Your task to perform on an android device: allow notifications from all sites in the chrome app Image 0: 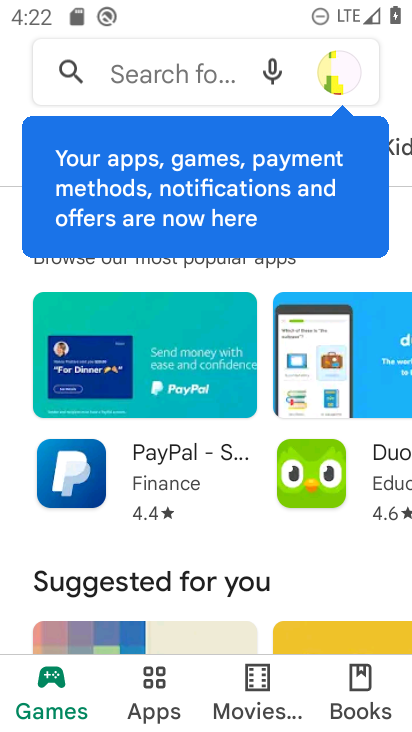
Step 0: press home button
Your task to perform on an android device: allow notifications from all sites in the chrome app Image 1: 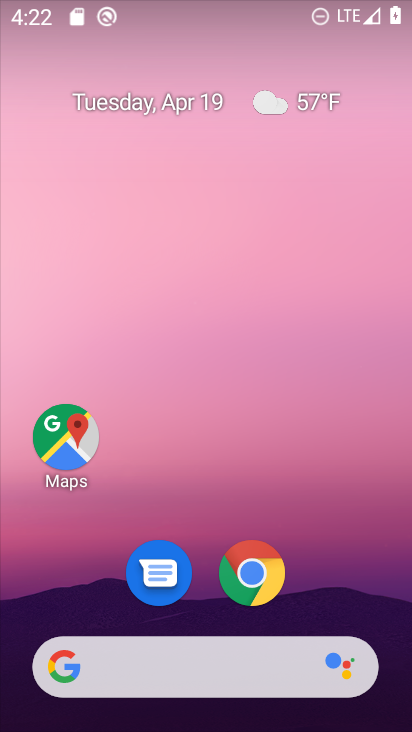
Step 1: click (265, 574)
Your task to perform on an android device: allow notifications from all sites in the chrome app Image 2: 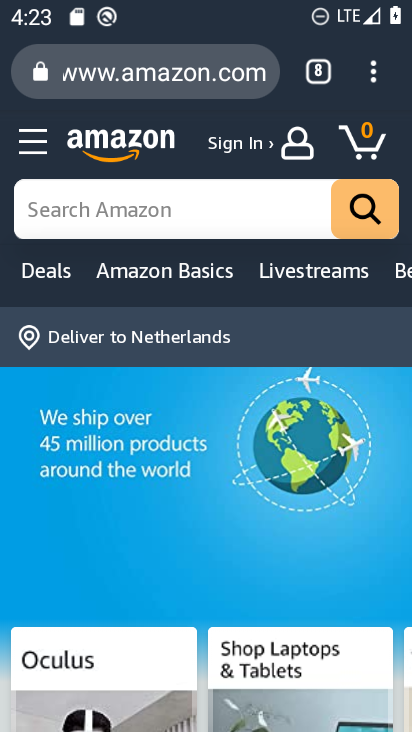
Step 2: click (374, 78)
Your task to perform on an android device: allow notifications from all sites in the chrome app Image 3: 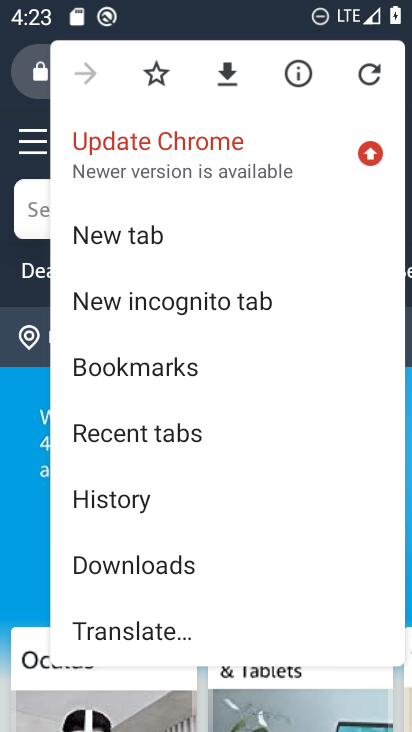
Step 3: drag from (316, 574) to (327, 186)
Your task to perform on an android device: allow notifications from all sites in the chrome app Image 4: 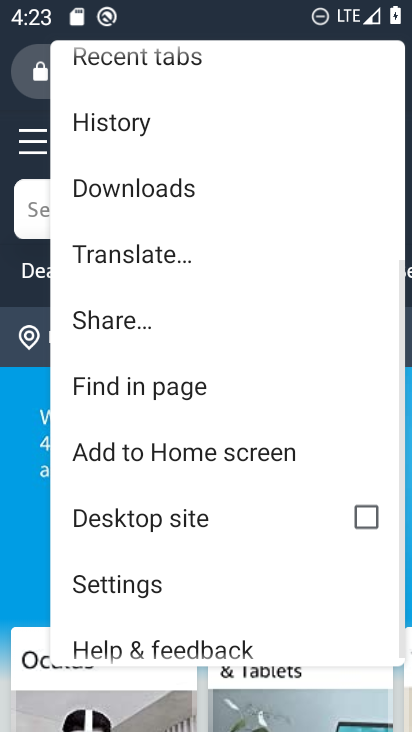
Step 4: drag from (281, 516) to (267, 240)
Your task to perform on an android device: allow notifications from all sites in the chrome app Image 5: 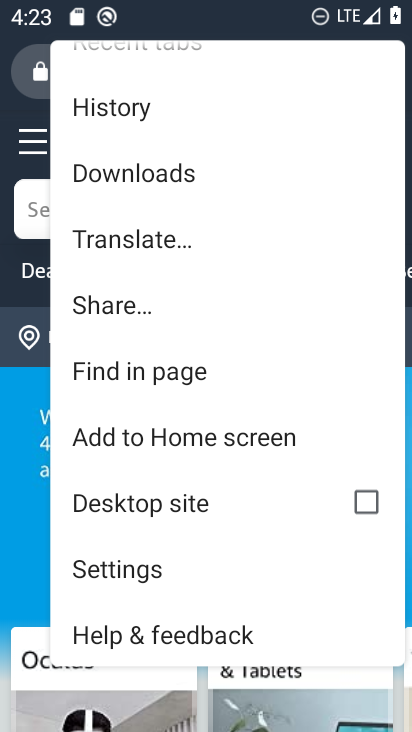
Step 5: click (120, 566)
Your task to perform on an android device: allow notifications from all sites in the chrome app Image 6: 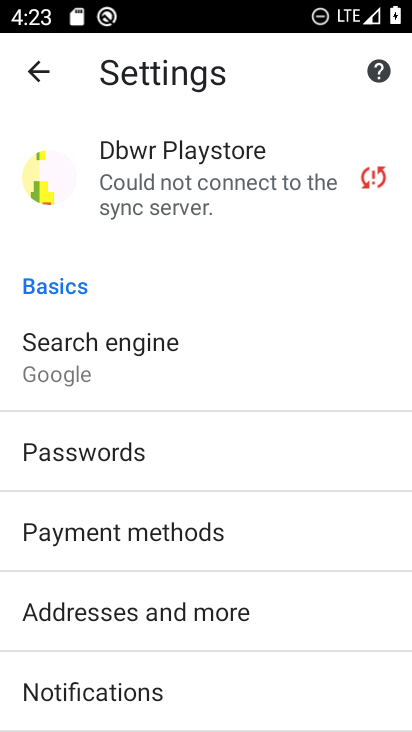
Step 6: drag from (308, 616) to (287, 348)
Your task to perform on an android device: allow notifications from all sites in the chrome app Image 7: 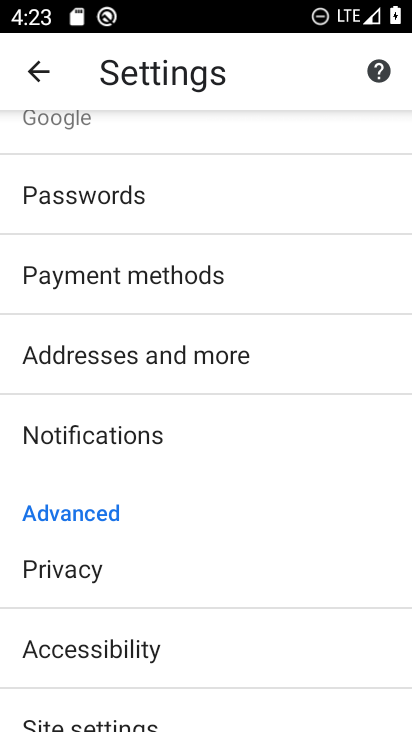
Step 7: drag from (205, 493) to (194, 183)
Your task to perform on an android device: allow notifications from all sites in the chrome app Image 8: 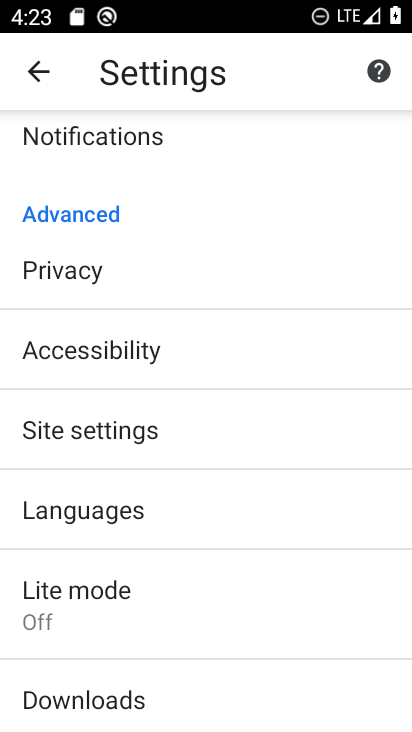
Step 8: click (116, 428)
Your task to perform on an android device: allow notifications from all sites in the chrome app Image 9: 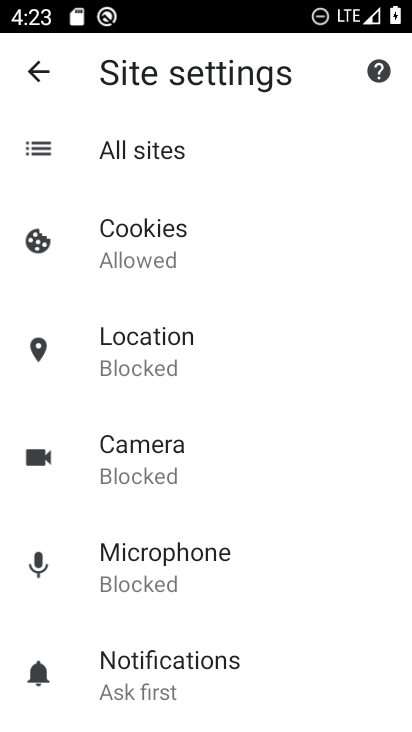
Step 9: click (168, 662)
Your task to perform on an android device: allow notifications from all sites in the chrome app Image 10: 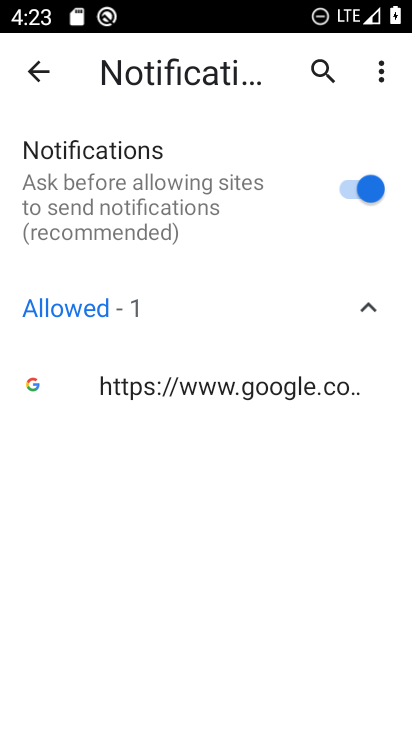
Step 10: task complete